Your task to perform on an android device: check out phone information Image 0: 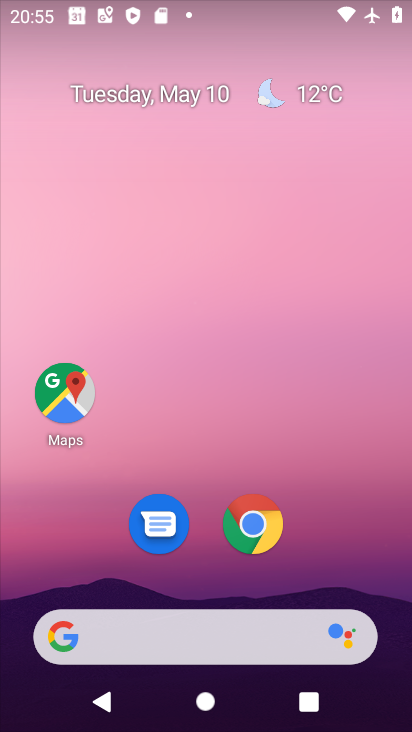
Step 0: drag from (228, 449) to (246, 0)
Your task to perform on an android device: check out phone information Image 1: 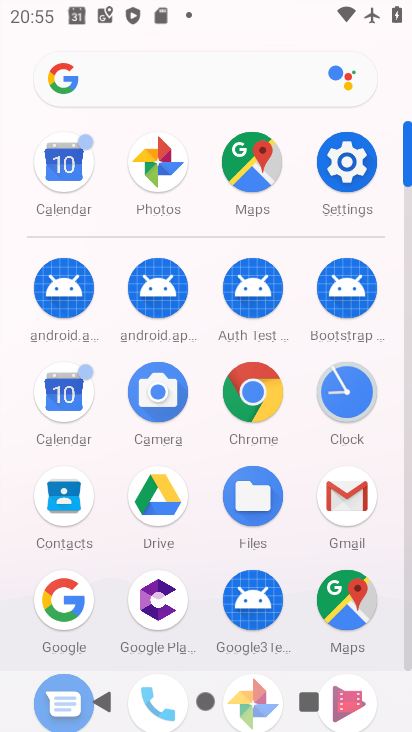
Step 1: drag from (202, 449) to (217, 177)
Your task to perform on an android device: check out phone information Image 2: 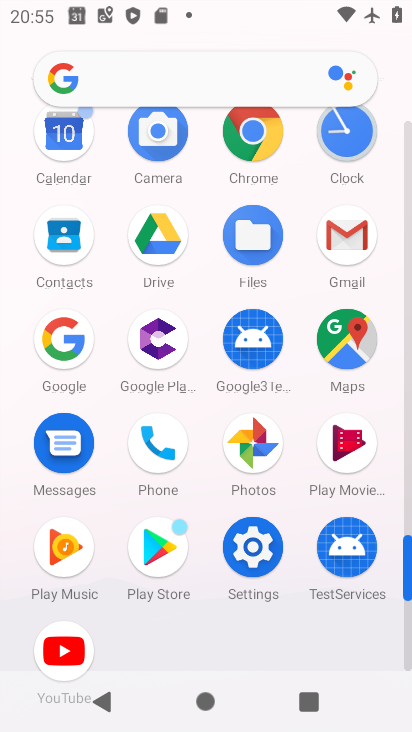
Step 2: click (169, 437)
Your task to perform on an android device: check out phone information Image 3: 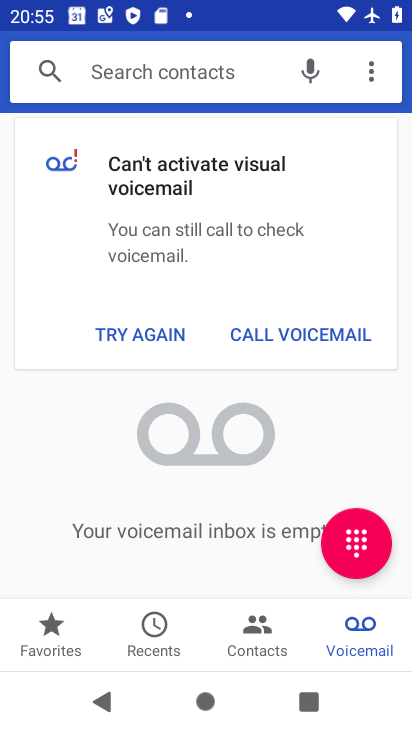
Step 3: click (373, 72)
Your task to perform on an android device: check out phone information Image 4: 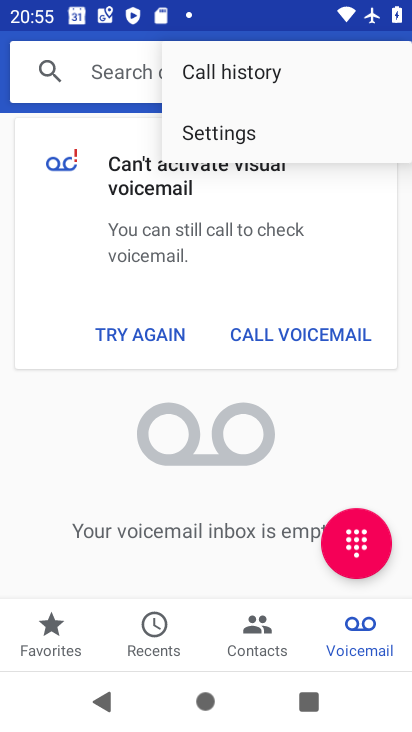
Step 4: click (300, 131)
Your task to perform on an android device: check out phone information Image 5: 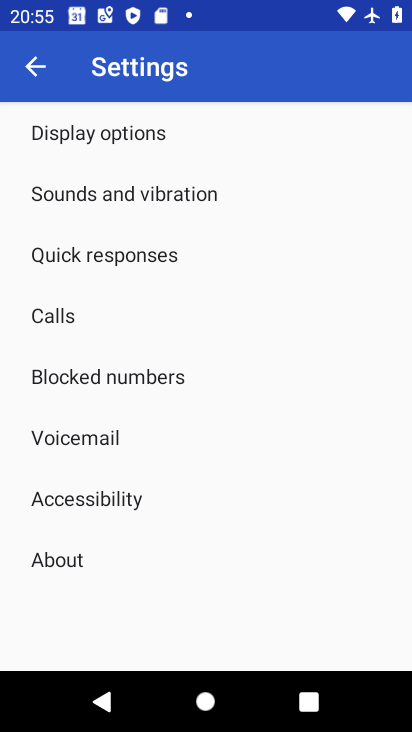
Step 5: click (66, 556)
Your task to perform on an android device: check out phone information Image 6: 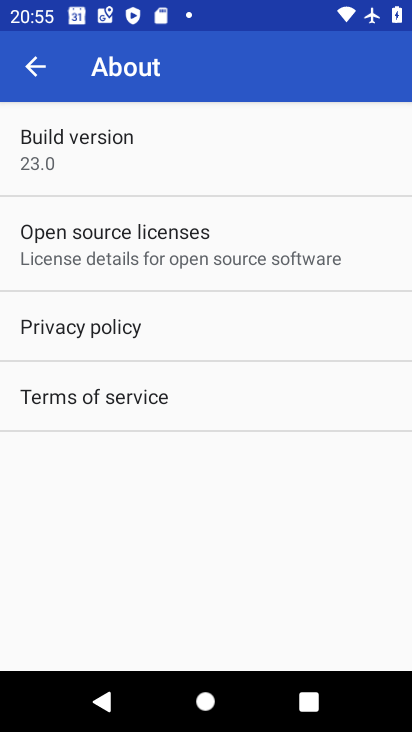
Step 6: task complete